Your task to perform on an android device: Open Yahoo.com Image 0: 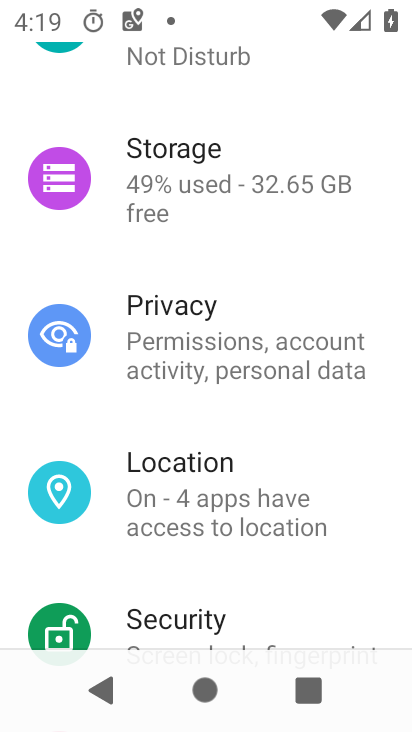
Step 0: press home button
Your task to perform on an android device: Open Yahoo.com Image 1: 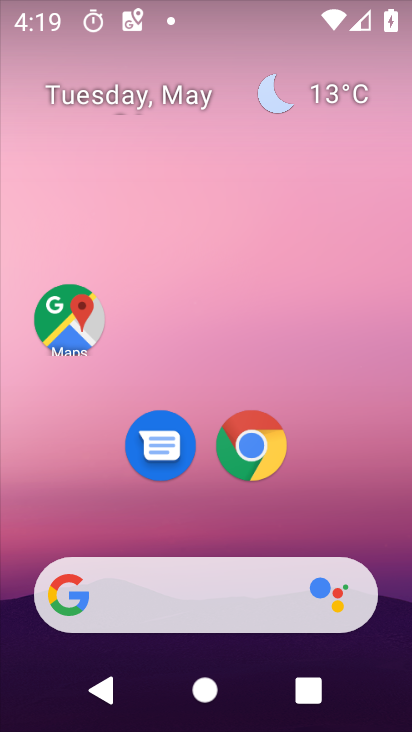
Step 1: click (248, 436)
Your task to perform on an android device: Open Yahoo.com Image 2: 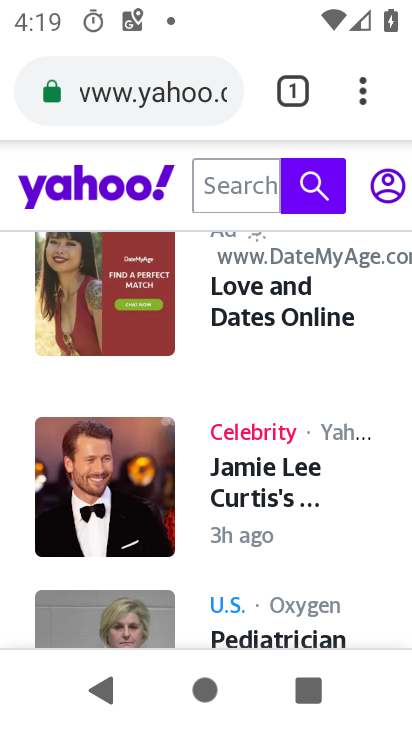
Step 2: click (362, 84)
Your task to perform on an android device: Open Yahoo.com Image 3: 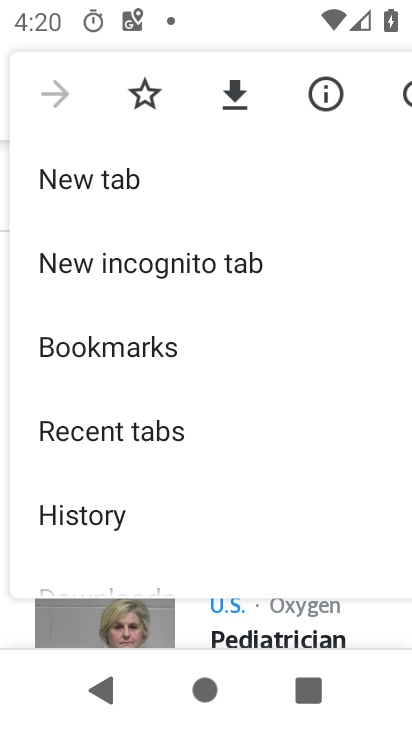
Step 3: click (125, 175)
Your task to perform on an android device: Open Yahoo.com Image 4: 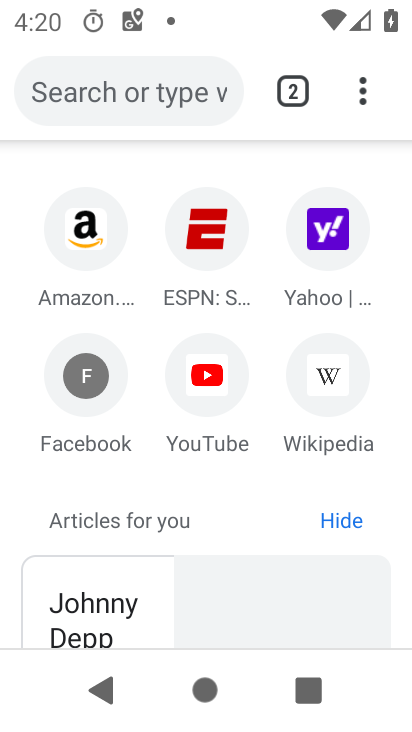
Step 4: click (320, 221)
Your task to perform on an android device: Open Yahoo.com Image 5: 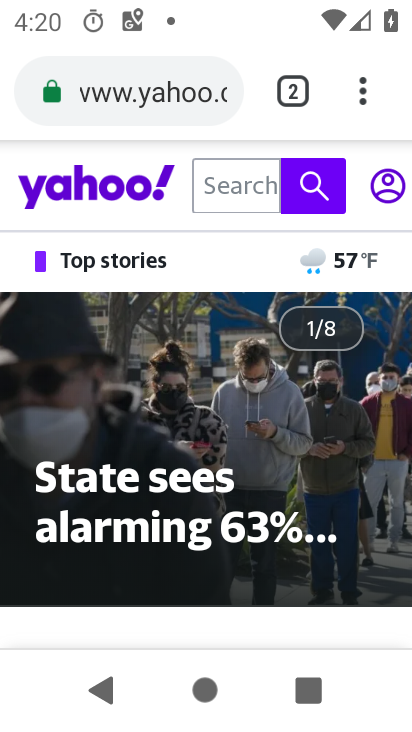
Step 5: task complete